Your task to perform on an android device: turn on showing notifications on the lock screen Image 0: 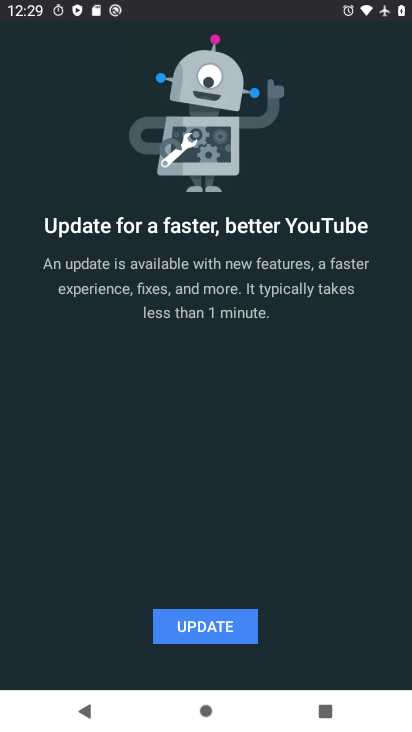
Step 0: press home button
Your task to perform on an android device: turn on showing notifications on the lock screen Image 1: 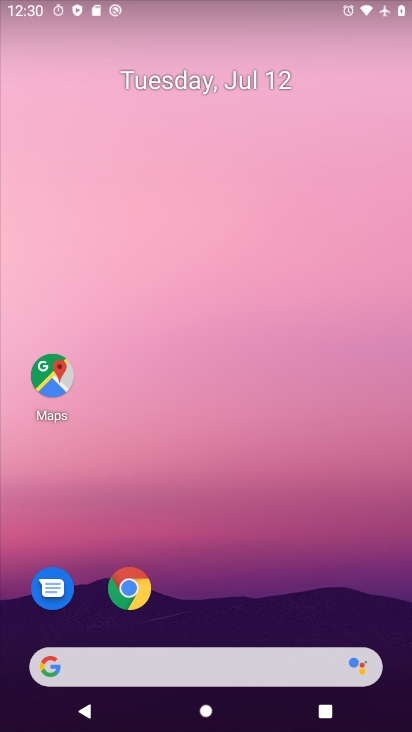
Step 1: drag from (141, 679) to (319, 51)
Your task to perform on an android device: turn on showing notifications on the lock screen Image 2: 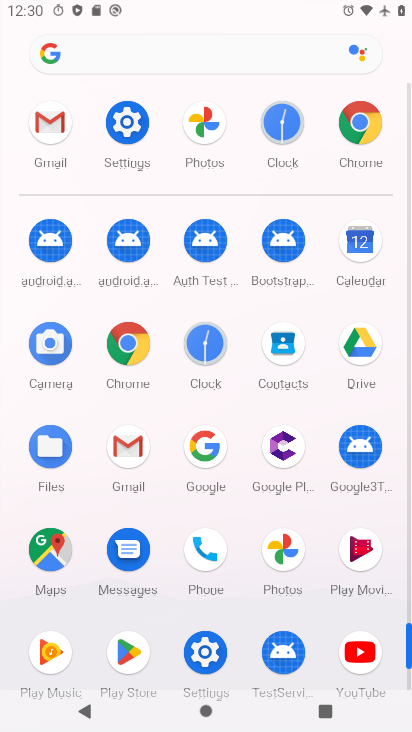
Step 2: click (129, 122)
Your task to perform on an android device: turn on showing notifications on the lock screen Image 3: 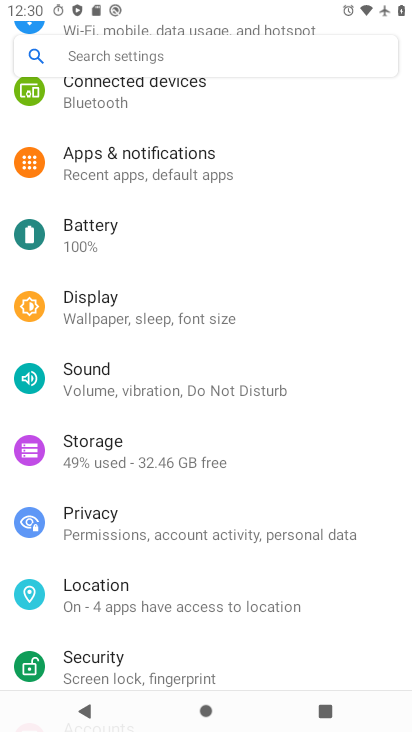
Step 3: click (187, 156)
Your task to perform on an android device: turn on showing notifications on the lock screen Image 4: 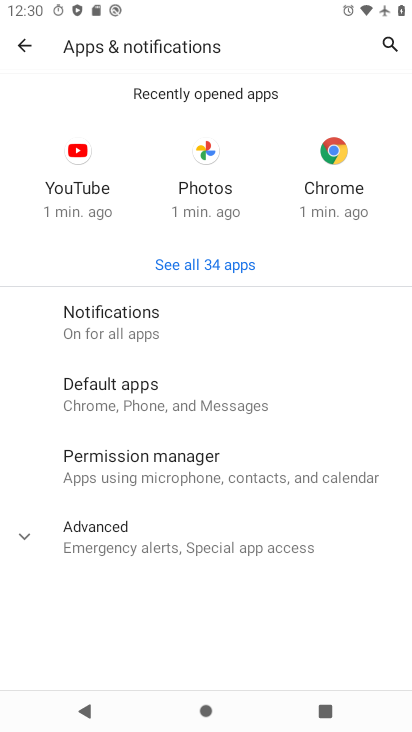
Step 4: click (147, 329)
Your task to perform on an android device: turn on showing notifications on the lock screen Image 5: 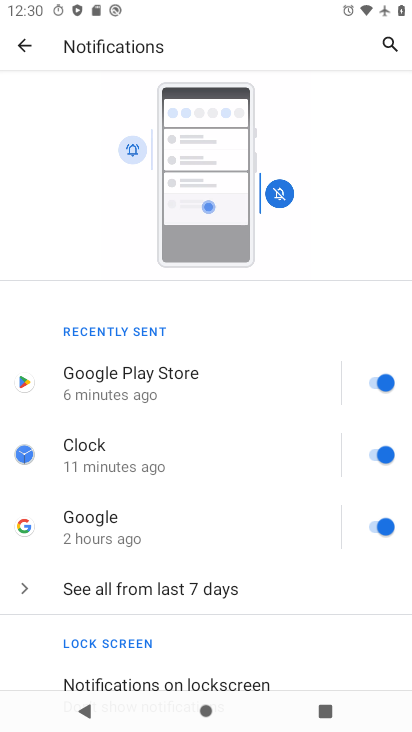
Step 5: drag from (239, 528) to (316, 186)
Your task to perform on an android device: turn on showing notifications on the lock screen Image 6: 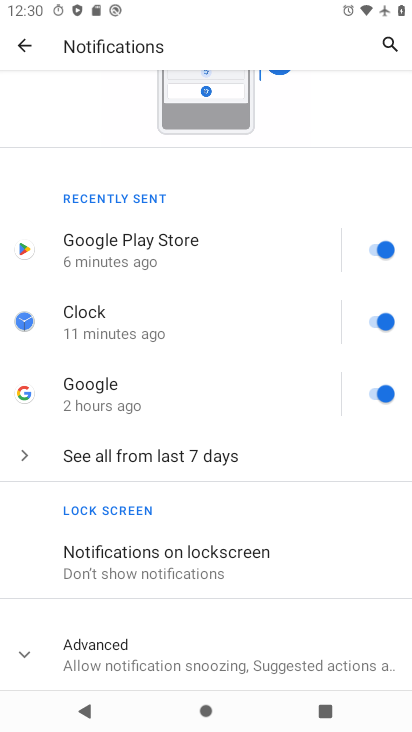
Step 6: click (215, 561)
Your task to perform on an android device: turn on showing notifications on the lock screen Image 7: 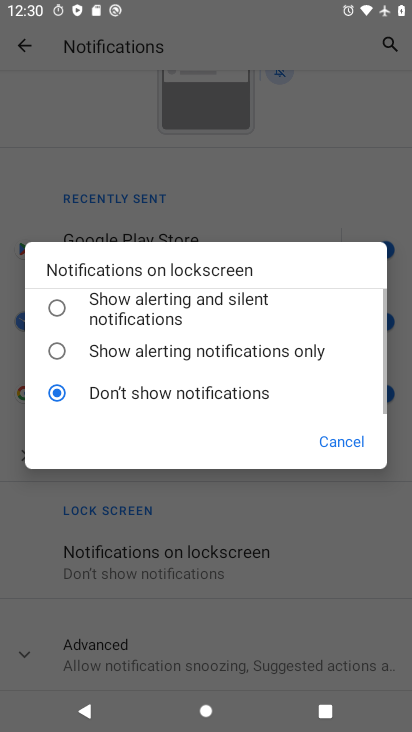
Step 7: click (58, 305)
Your task to perform on an android device: turn on showing notifications on the lock screen Image 8: 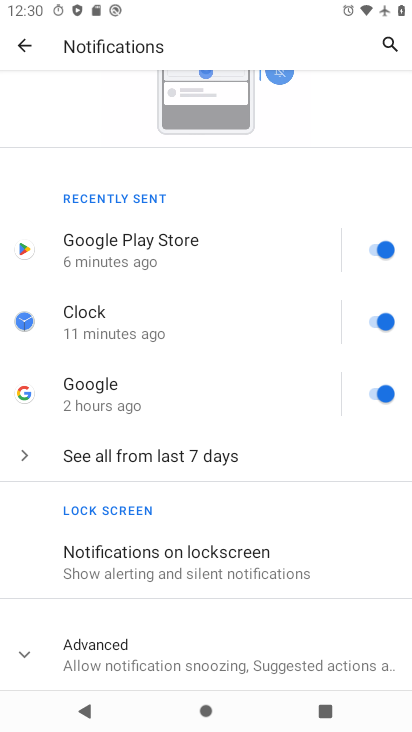
Step 8: task complete